Your task to perform on an android device: Open the stopwatch Image 0: 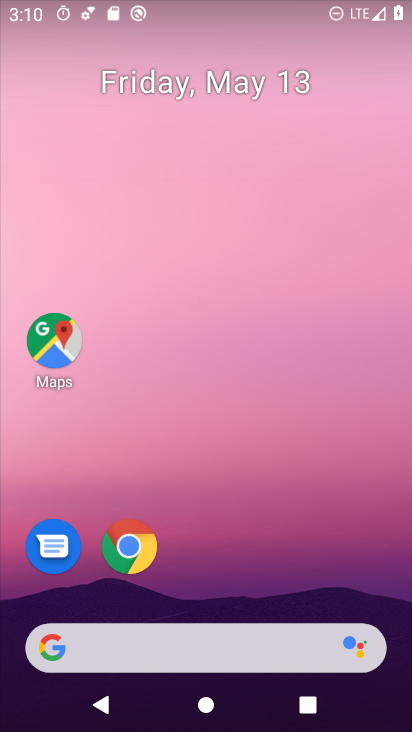
Step 0: drag from (220, 582) to (233, 64)
Your task to perform on an android device: Open the stopwatch Image 1: 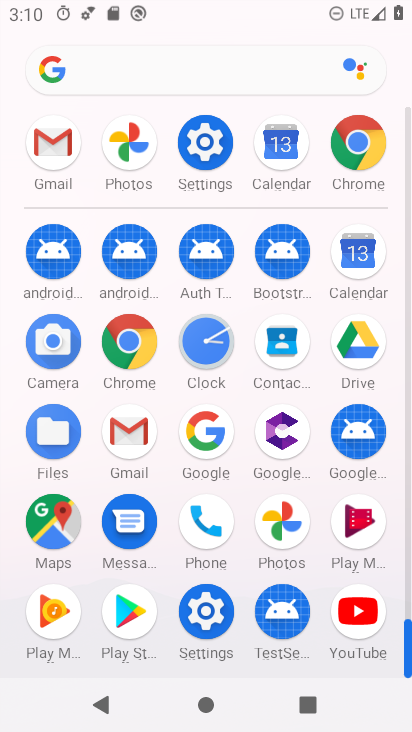
Step 1: drag from (269, 529) to (269, 363)
Your task to perform on an android device: Open the stopwatch Image 2: 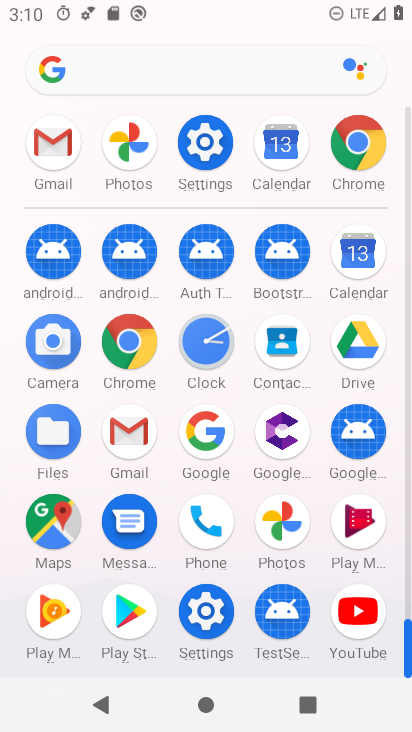
Step 2: click (210, 345)
Your task to perform on an android device: Open the stopwatch Image 3: 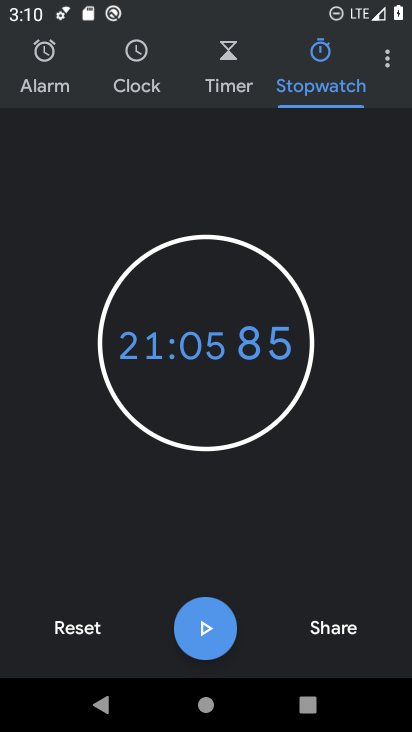
Step 3: task complete